Your task to perform on an android device: see sites visited before in the chrome app Image 0: 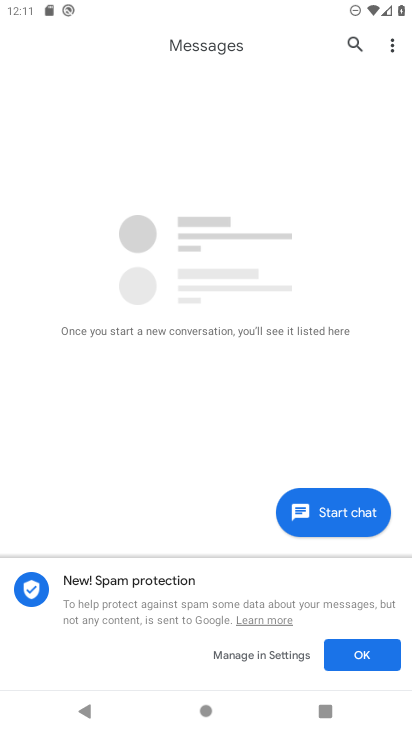
Step 0: press home button
Your task to perform on an android device: see sites visited before in the chrome app Image 1: 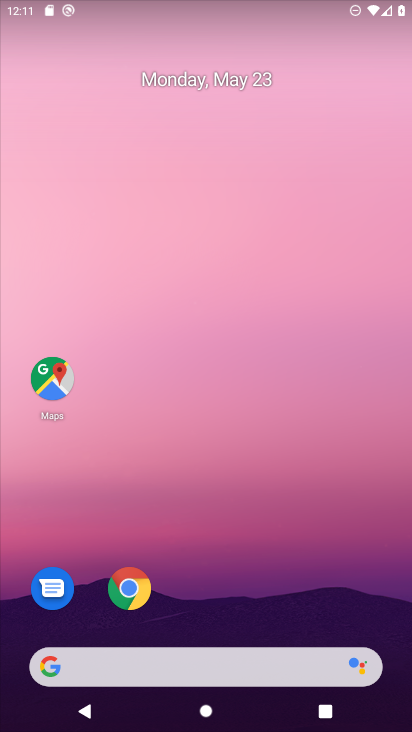
Step 1: drag from (275, 691) to (256, 240)
Your task to perform on an android device: see sites visited before in the chrome app Image 2: 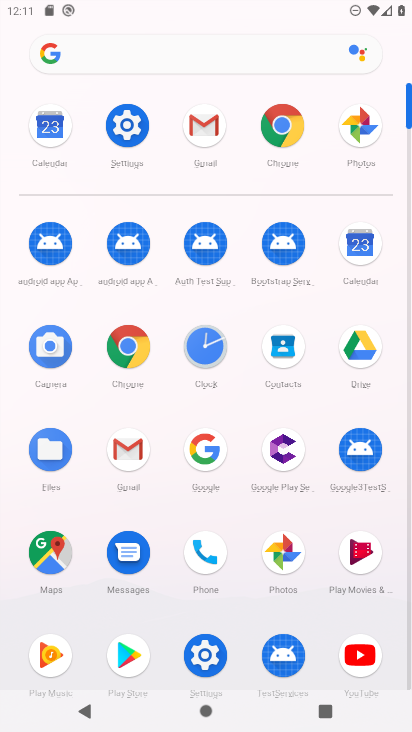
Step 2: click (141, 347)
Your task to perform on an android device: see sites visited before in the chrome app Image 3: 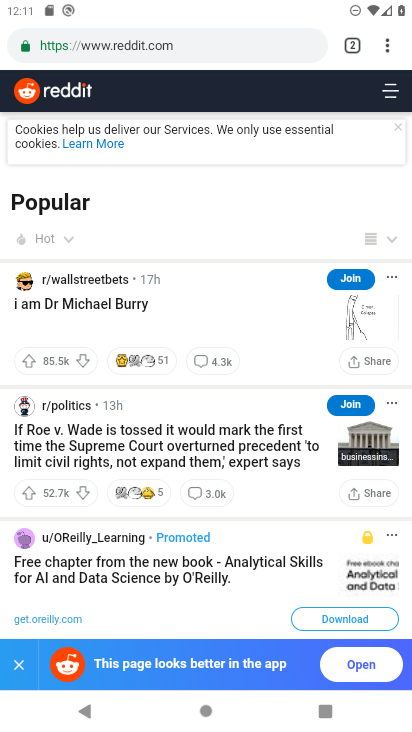
Step 3: click (386, 39)
Your task to perform on an android device: see sites visited before in the chrome app Image 4: 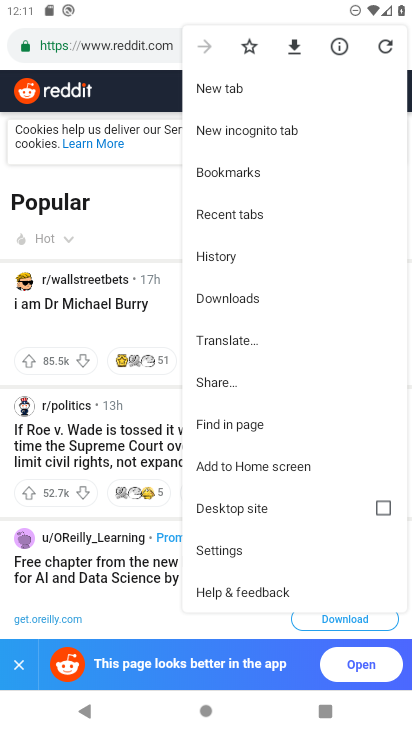
Step 4: click (223, 554)
Your task to perform on an android device: see sites visited before in the chrome app Image 5: 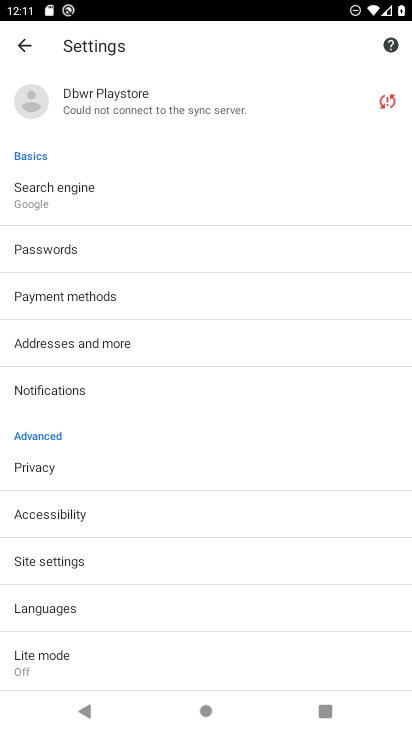
Step 5: click (68, 560)
Your task to perform on an android device: see sites visited before in the chrome app Image 6: 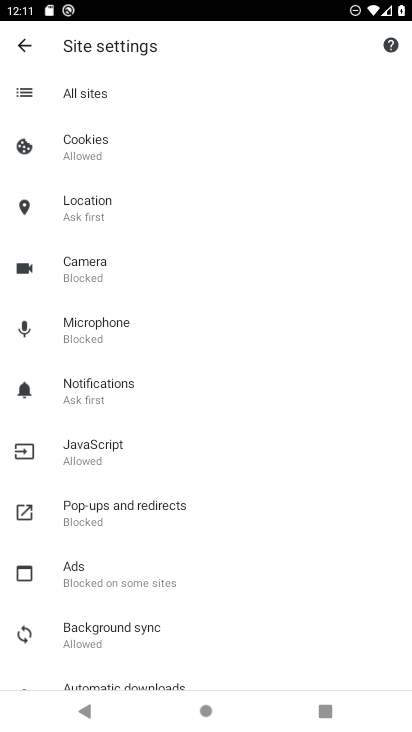
Step 6: click (122, 95)
Your task to perform on an android device: see sites visited before in the chrome app Image 7: 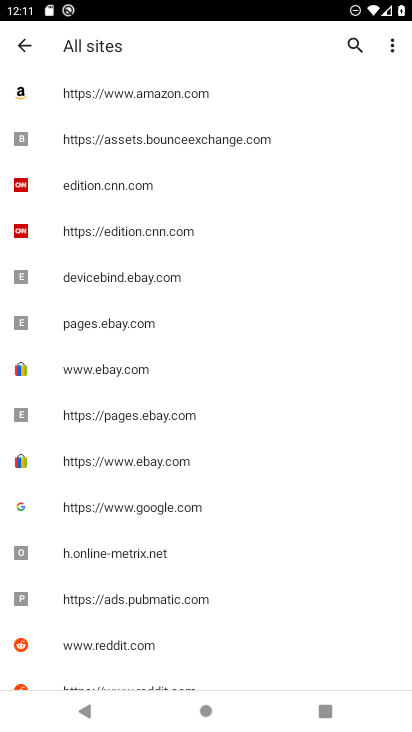
Step 7: task complete